Your task to perform on an android device: turn off airplane mode Image 0: 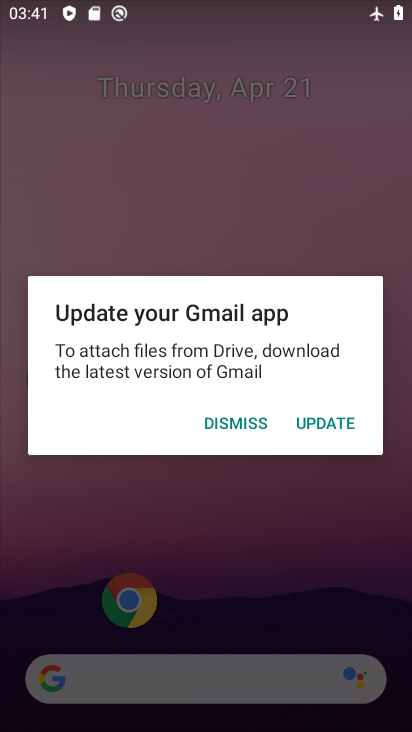
Step 0: press home button
Your task to perform on an android device: turn off airplane mode Image 1: 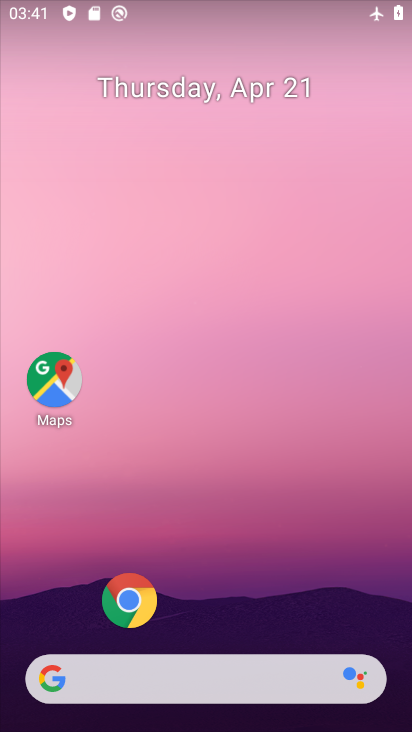
Step 1: drag from (251, 424) to (331, 113)
Your task to perform on an android device: turn off airplane mode Image 2: 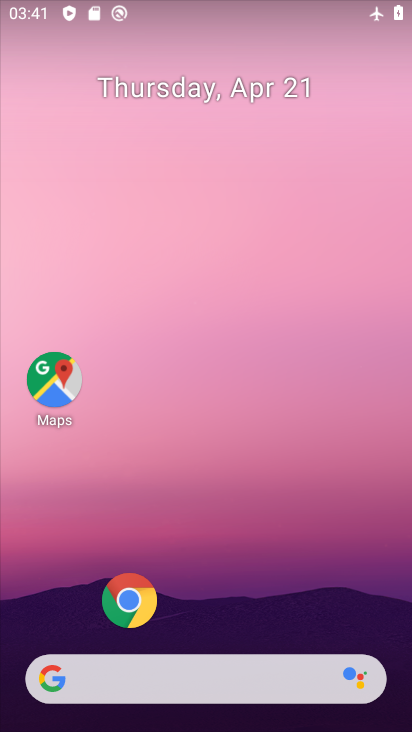
Step 2: drag from (266, 573) to (226, 142)
Your task to perform on an android device: turn off airplane mode Image 3: 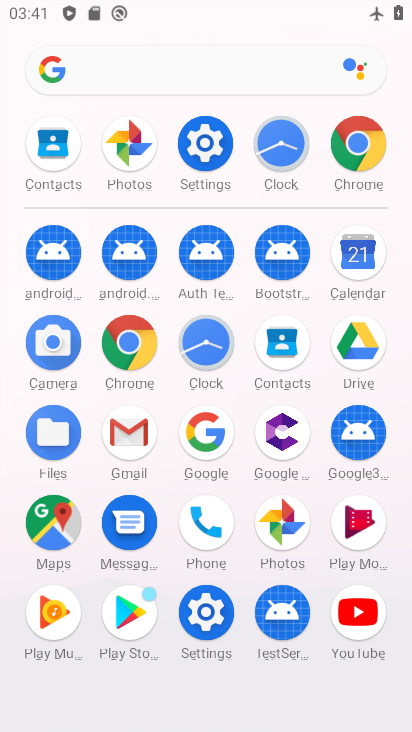
Step 3: click (221, 158)
Your task to perform on an android device: turn off airplane mode Image 4: 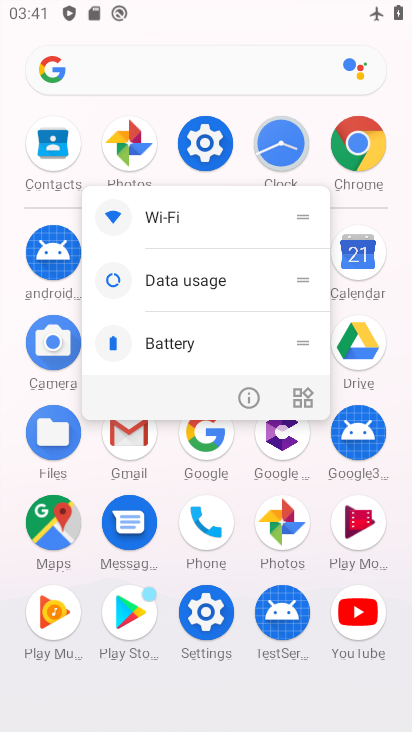
Step 4: click (255, 398)
Your task to perform on an android device: turn off airplane mode Image 5: 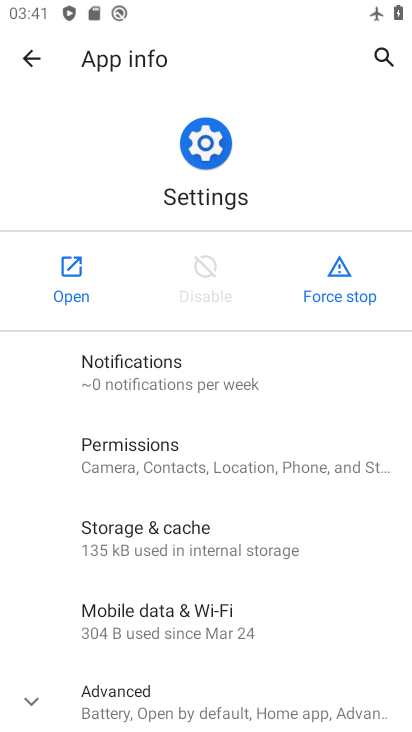
Step 5: click (72, 281)
Your task to perform on an android device: turn off airplane mode Image 6: 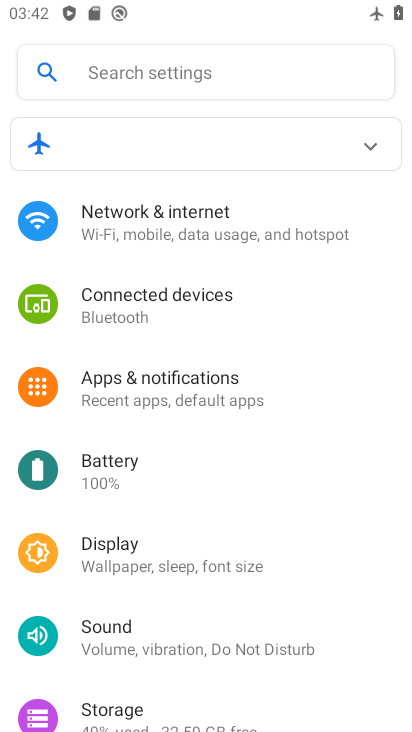
Step 6: click (168, 231)
Your task to perform on an android device: turn off airplane mode Image 7: 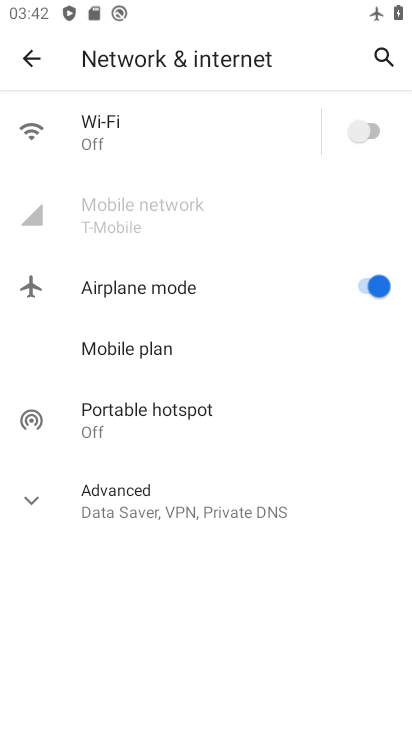
Step 7: click (368, 284)
Your task to perform on an android device: turn off airplane mode Image 8: 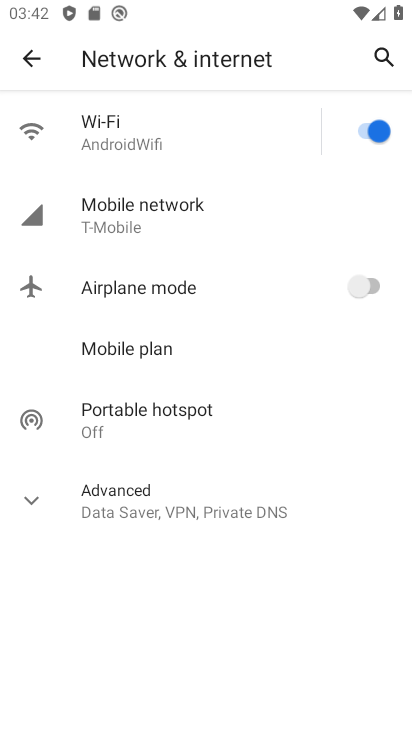
Step 8: task complete